Your task to perform on an android device: find snoozed emails in the gmail app Image 0: 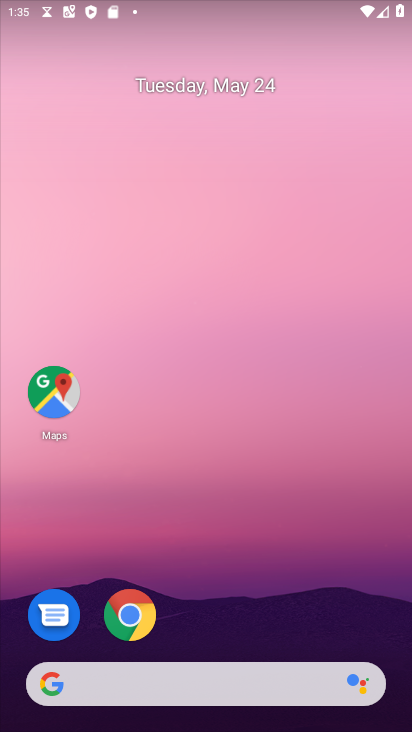
Step 0: press home button
Your task to perform on an android device: find snoozed emails in the gmail app Image 1: 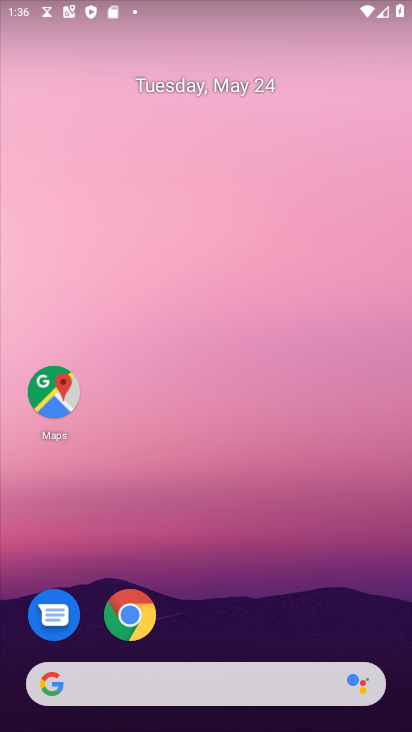
Step 1: drag from (214, 637) to (209, 121)
Your task to perform on an android device: find snoozed emails in the gmail app Image 2: 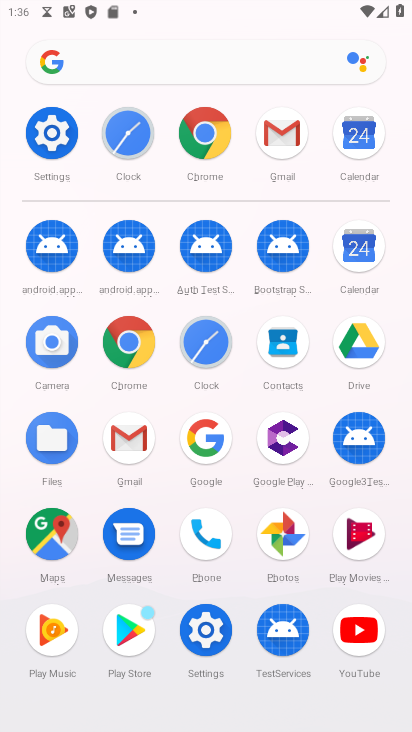
Step 2: click (125, 432)
Your task to perform on an android device: find snoozed emails in the gmail app Image 3: 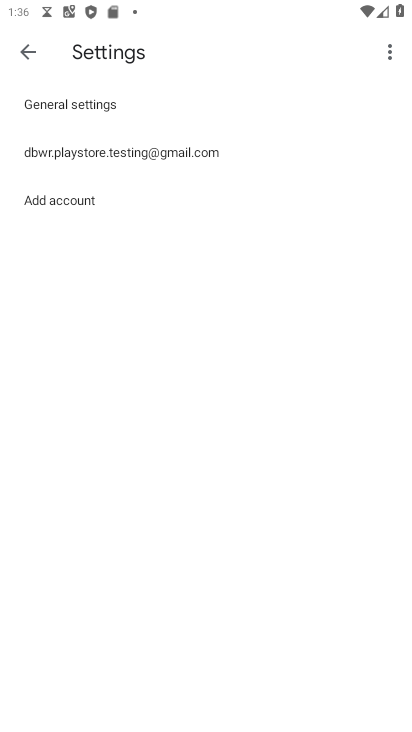
Step 3: click (34, 52)
Your task to perform on an android device: find snoozed emails in the gmail app Image 4: 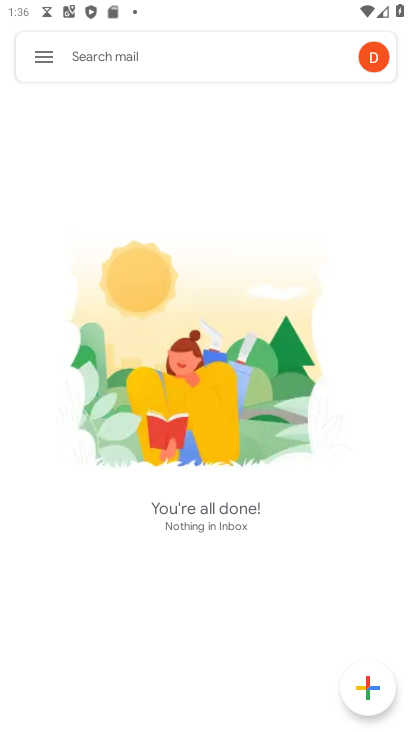
Step 4: click (43, 56)
Your task to perform on an android device: find snoozed emails in the gmail app Image 5: 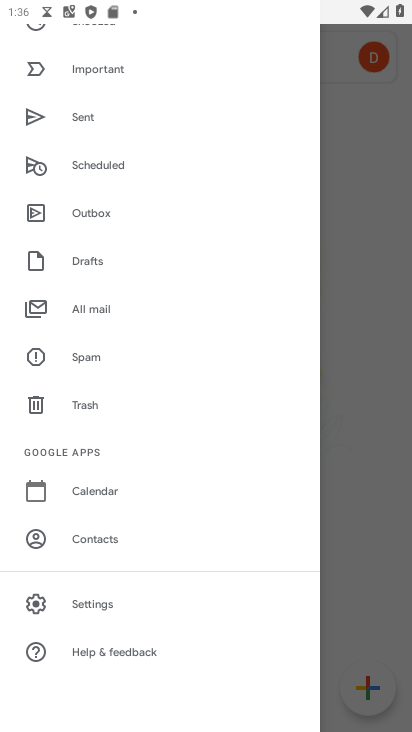
Step 5: drag from (98, 108) to (91, 693)
Your task to perform on an android device: find snoozed emails in the gmail app Image 6: 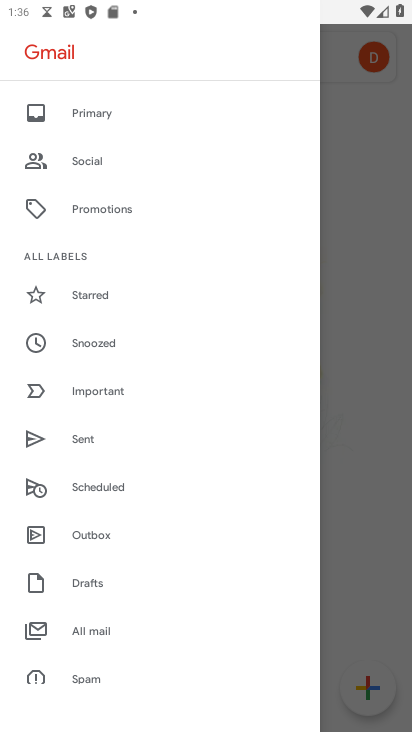
Step 6: click (127, 340)
Your task to perform on an android device: find snoozed emails in the gmail app Image 7: 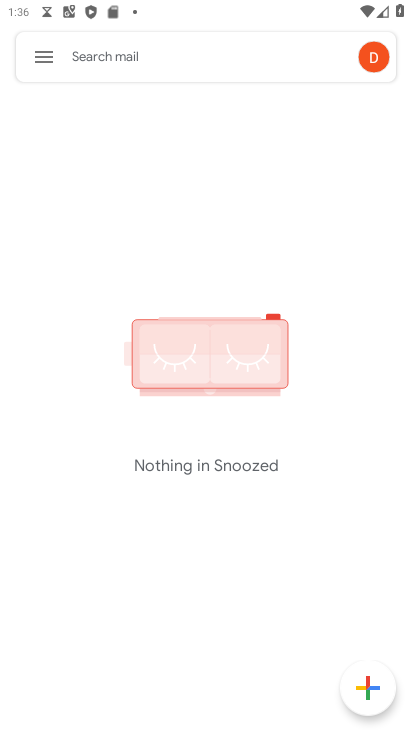
Step 7: task complete